Your task to perform on an android device: set the stopwatch Image 0: 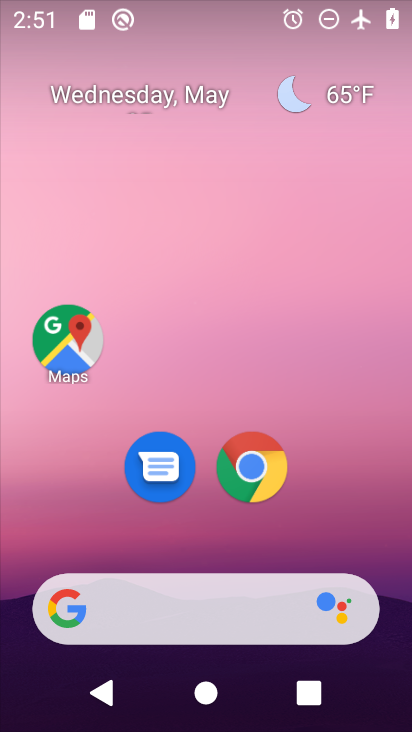
Step 0: click (274, 408)
Your task to perform on an android device: set the stopwatch Image 1: 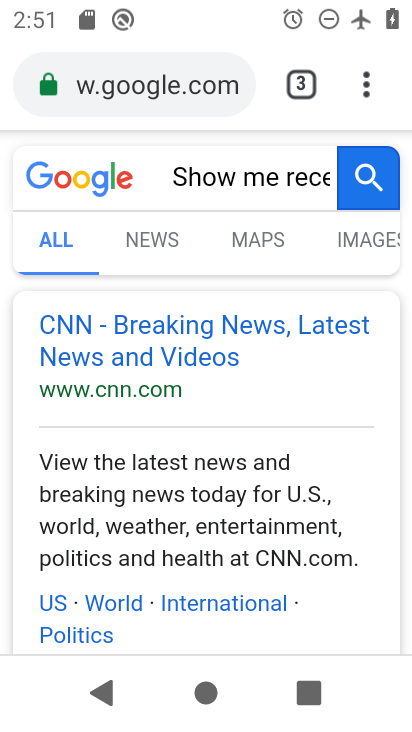
Step 1: press home button
Your task to perform on an android device: set the stopwatch Image 2: 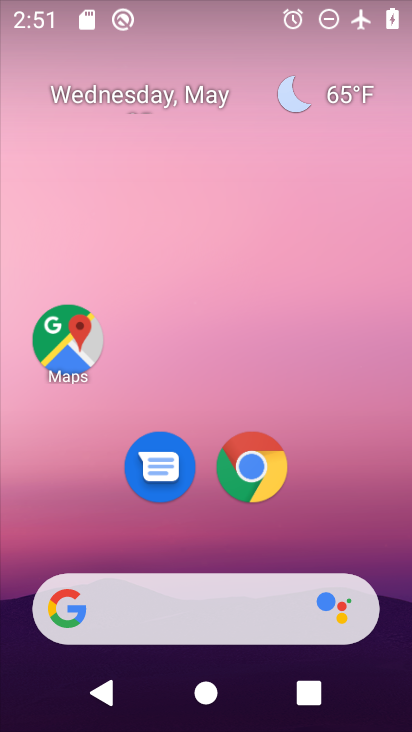
Step 2: drag from (324, 494) to (321, 192)
Your task to perform on an android device: set the stopwatch Image 3: 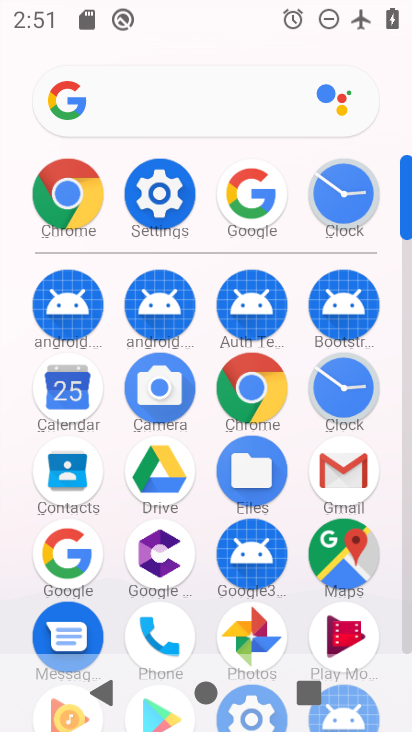
Step 3: click (346, 420)
Your task to perform on an android device: set the stopwatch Image 4: 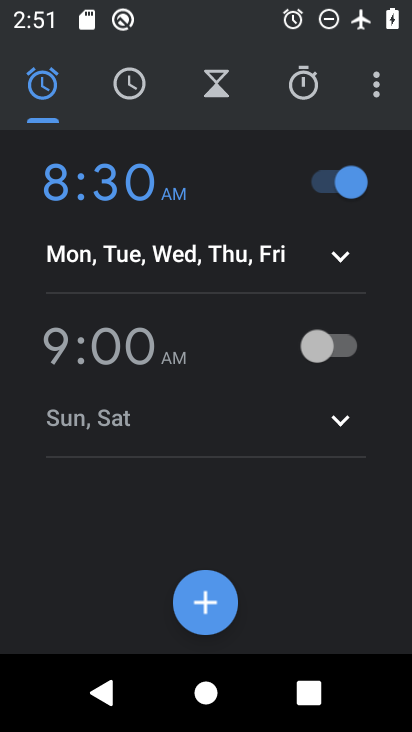
Step 4: click (310, 100)
Your task to perform on an android device: set the stopwatch Image 5: 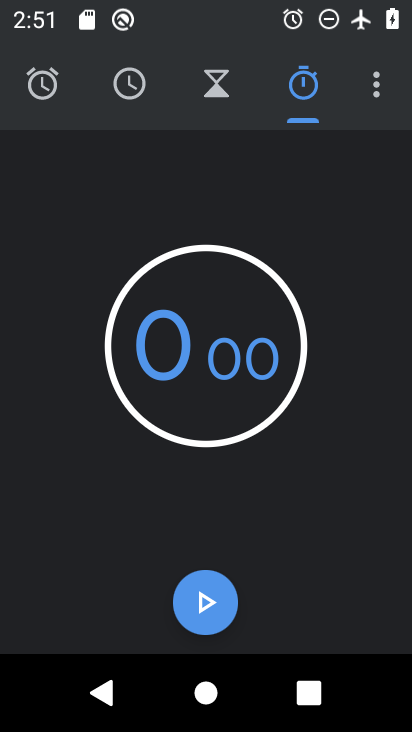
Step 5: task complete